Your task to perform on an android device: move an email to a new category in the gmail app Image 0: 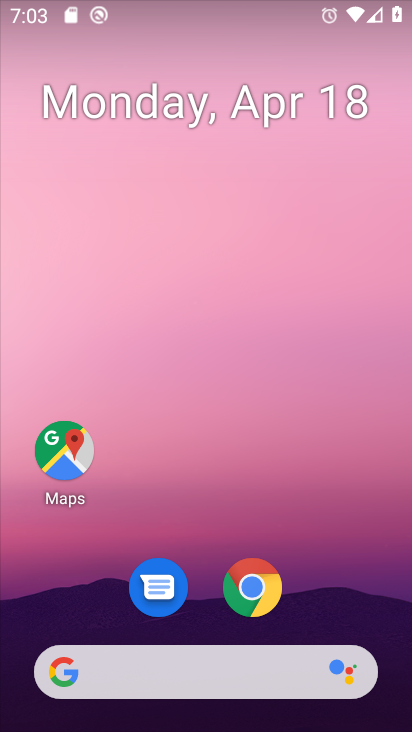
Step 0: drag from (342, 406) to (342, 196)
Your task to perform on an android device: move an email to a new category in the gmail app Image 1: 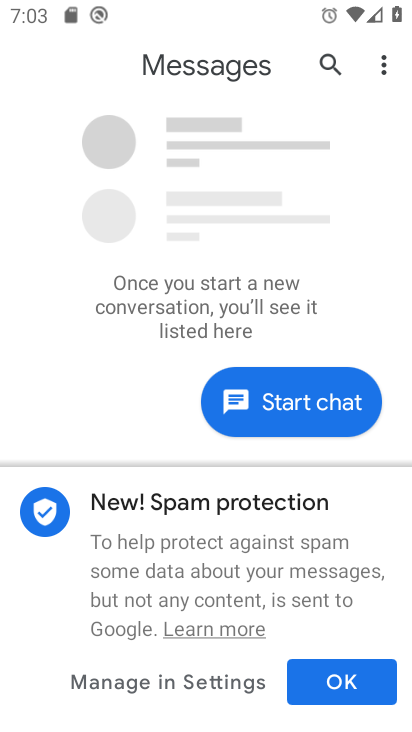
Step 1: press back button
Your task to perform on an android device: move an email to a new category in the gmail app Image 2: 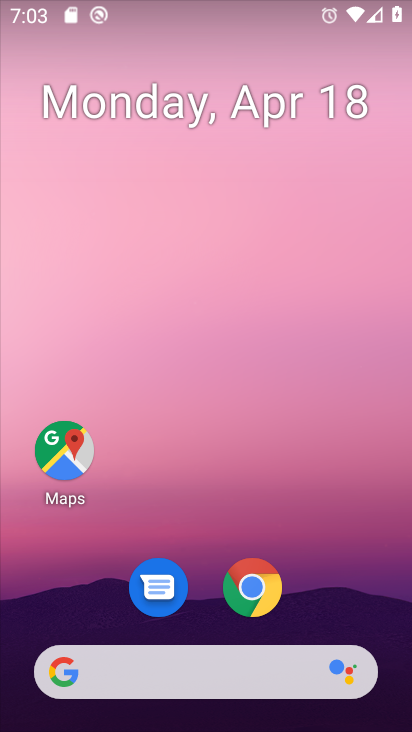
Step 2: drag from (333, 594) to (336, 190)
Your task to perform on an android device: move an email to a new category in the gmail app Image 3: 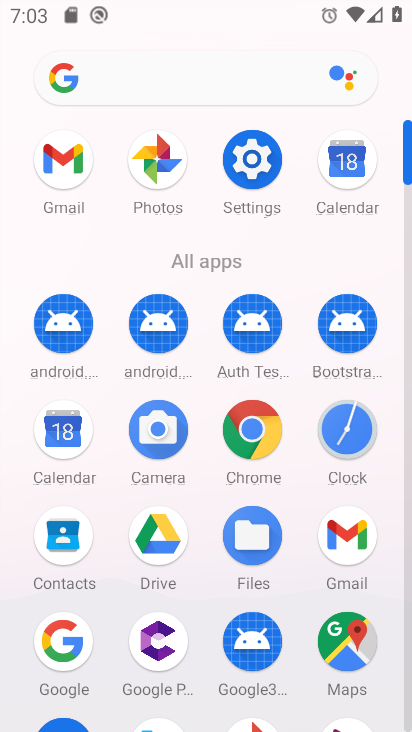
Step 3: click (351, 550)
Your task to perform on an android device: move an email to a new category in the gmail app Image 4: 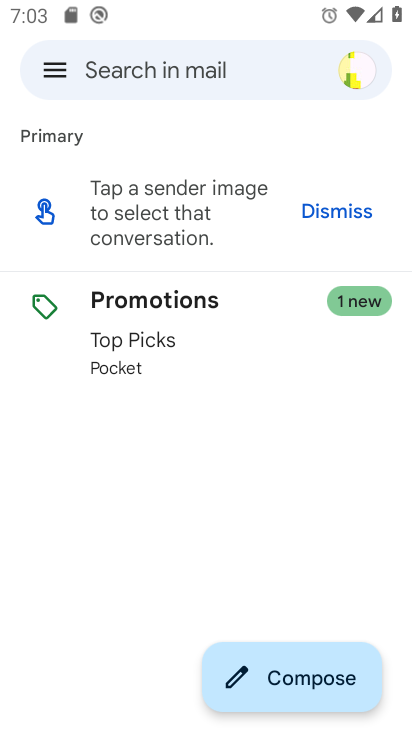
Step 4: click (58, 60)
Your task to perform on an android device: move an email to a new category in the gmail app Image 5: 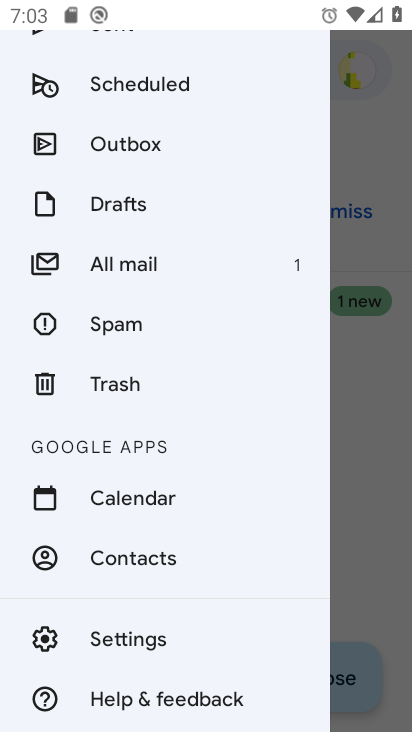
Step 5: click (182, 262)
Your task to perform on an android device: move an email to a new category in the gmail app Image 6: 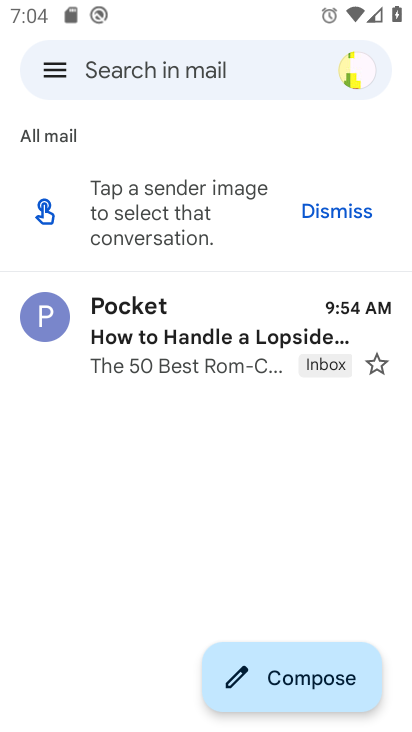
Step 6: click (191, 330)
Your task to perform on an android device: move an email to a new category in the gmail app Image 7: 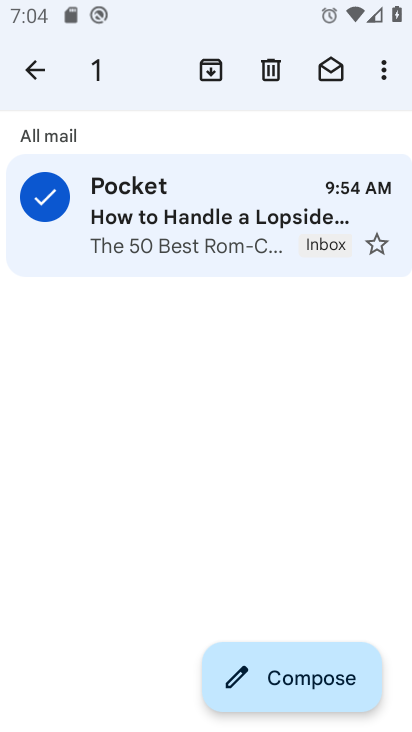
Step 7: click (390, 64)
Your task to perform on an android device: move an email to a new category in the gmail app Image 8: 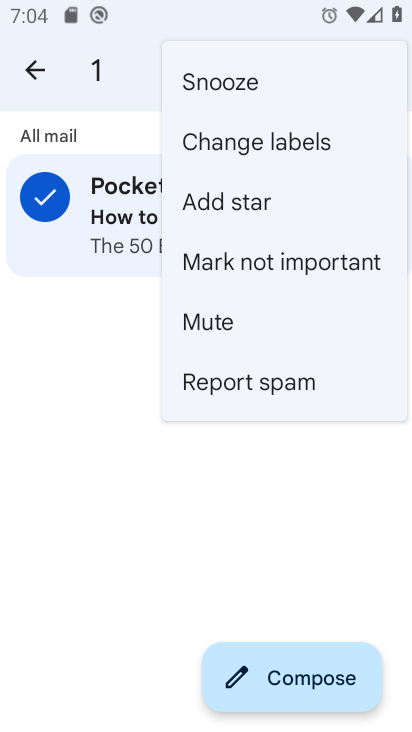
Step 8: click (269, 79)
Your task to perform on an android device: move an email to a new category in the gmail app Image 9: 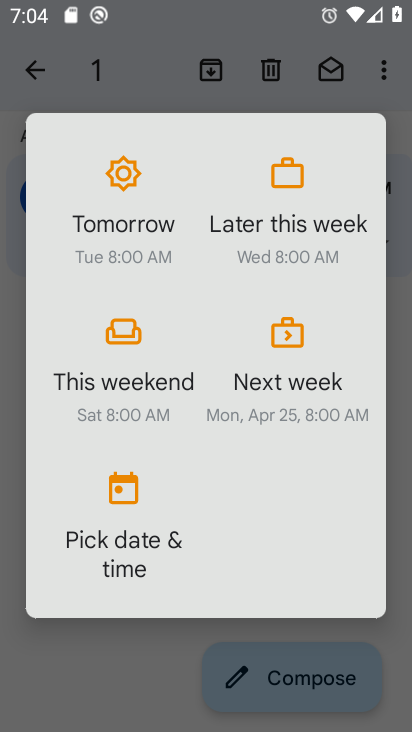
Step 9: click (121, 506)
Your task to perform on an android device: move an email to a new category in the gmail app Image 10: 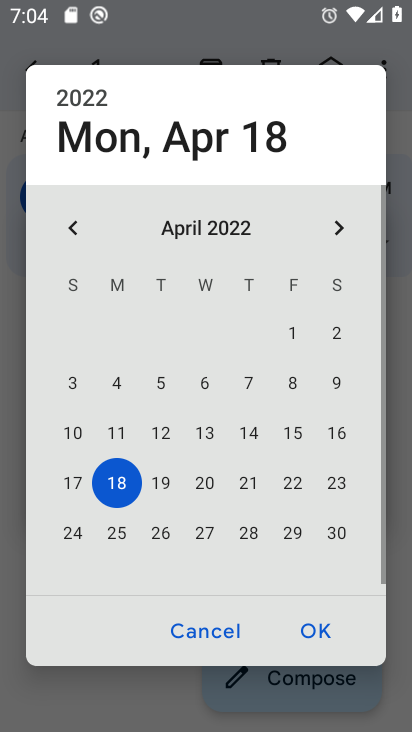
Step 10: click (112, 492)
Your task to perform on an android device: move an email to a new category in the gmail app Image 11: 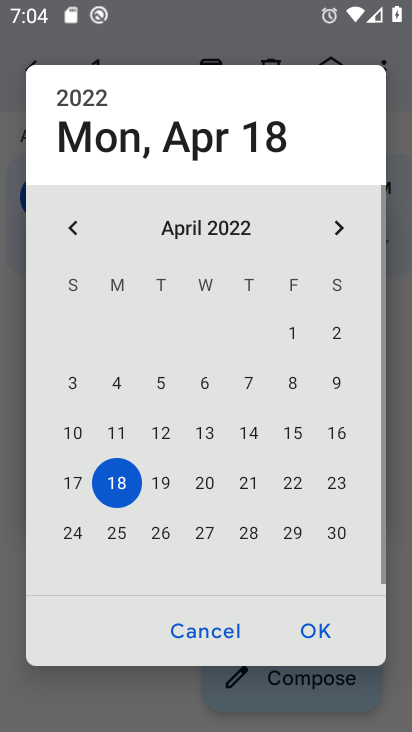
Step 11: click (299, 627)
Your task to perform on an android device: move an email to a new category in the gmail app Image 12: 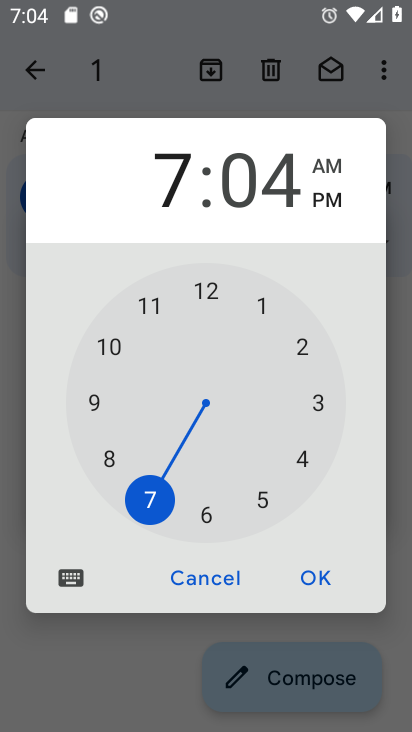
Step 12: click (319, 587)
Your task to perform on an android device: move an email to a new category in the gmail app Image 13: 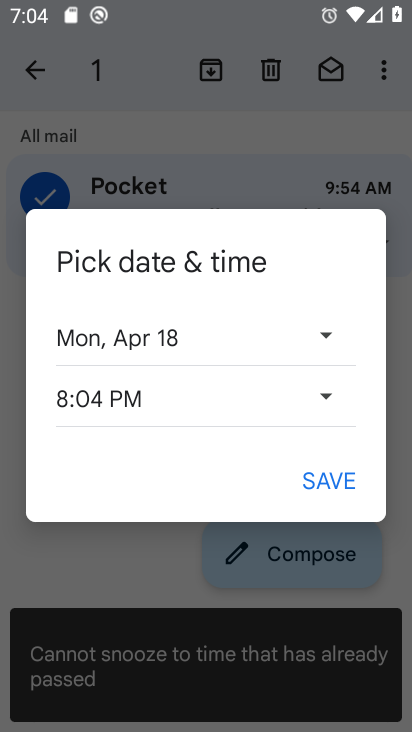
Step 13: click (326, 461)
Your task to perform on an android device: move an email to a new category in the gmail app Image 14: 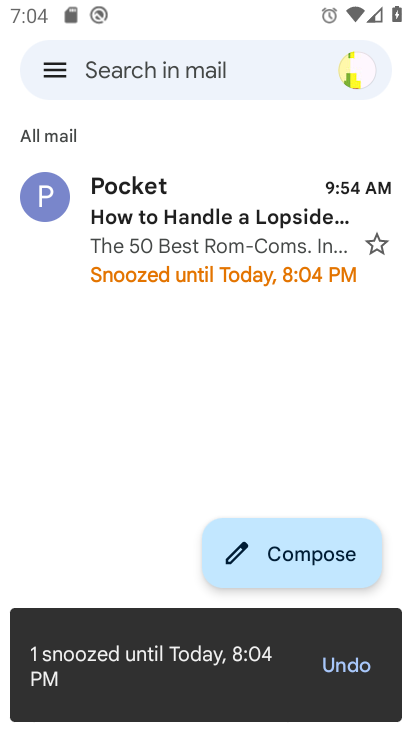
Step 14: task complete